Your task to perform on an android device: Go to internet settings Image 0: 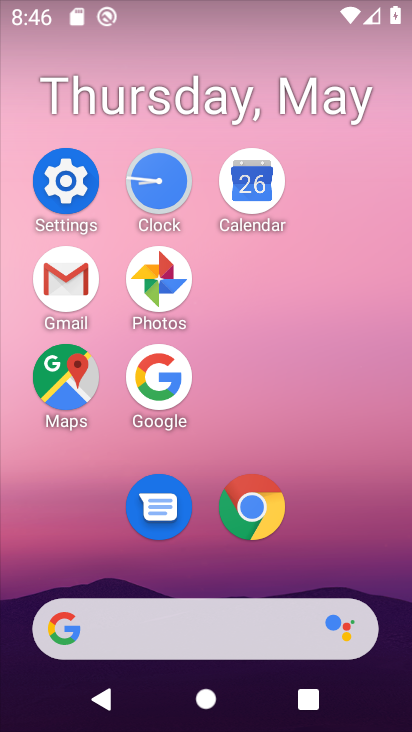
Step 0: click (80, 199)
Your task to perform on an android device: Go to internet settings Image 1: 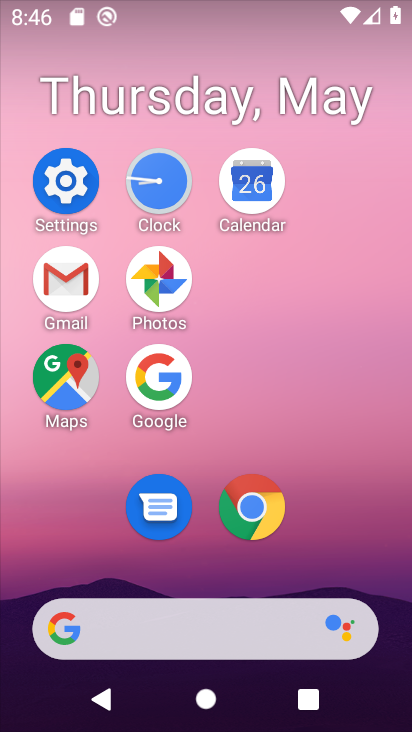
Step 1: click (68, 198)
Your task to perform on an android device: Go to internet settings Image 2: 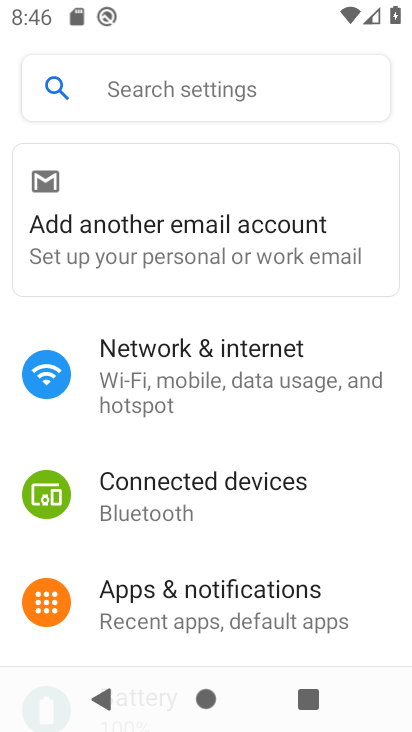
Step 2: click (225, 382)
Your task to perform on an android device: Go to internet settings Image 3: 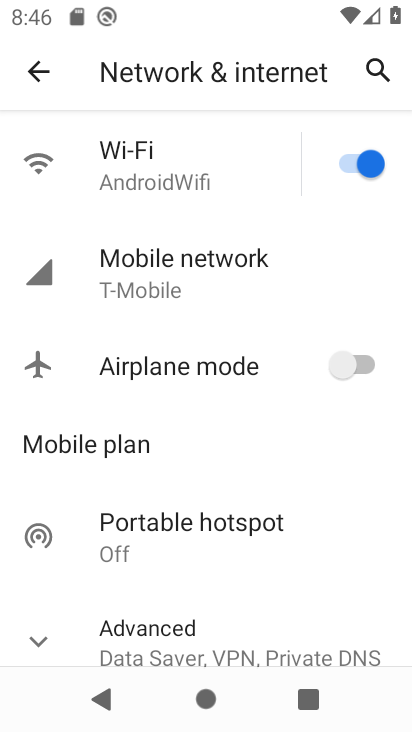
Step 3: task complete